Your task to perform on an android device: Open the calendar and show me this week's events? Image 0: 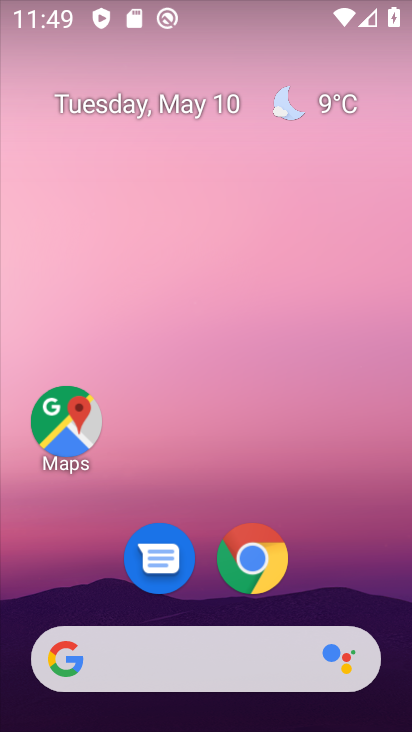
Step 0: drag from (389, 580) to (388, 209)
Your task to perform on an android device: Open the calendar and show me this week's events? Image 1: 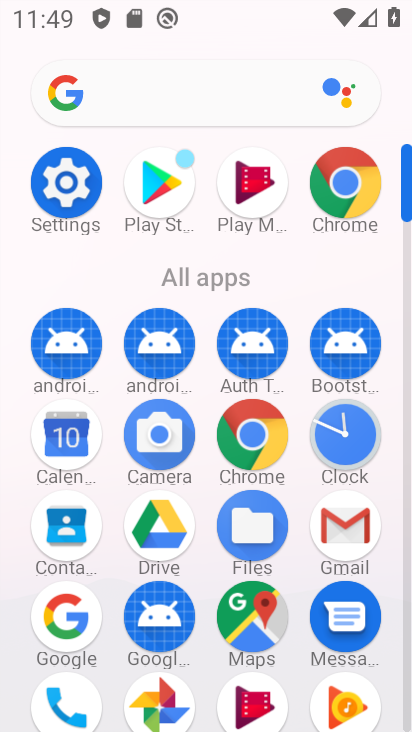
Step 1: click (52, 449)
Your task to perform on an android device: Open the calendar and show me this week's events? Image 2: 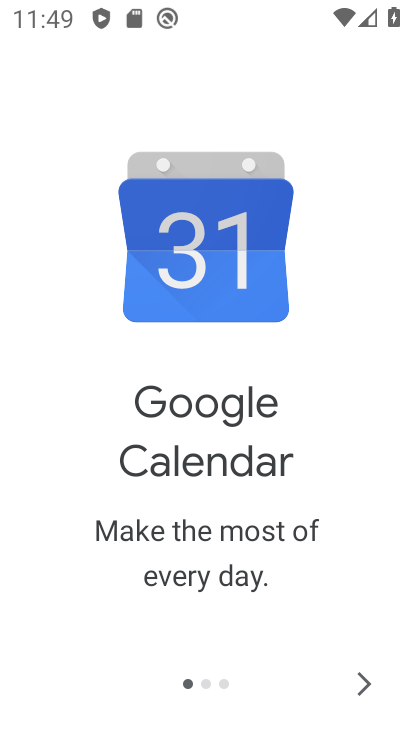
Step 2: click (371, 698)
Your task to perform on an android device: Open the calendar and show me this week's events? Image 3: 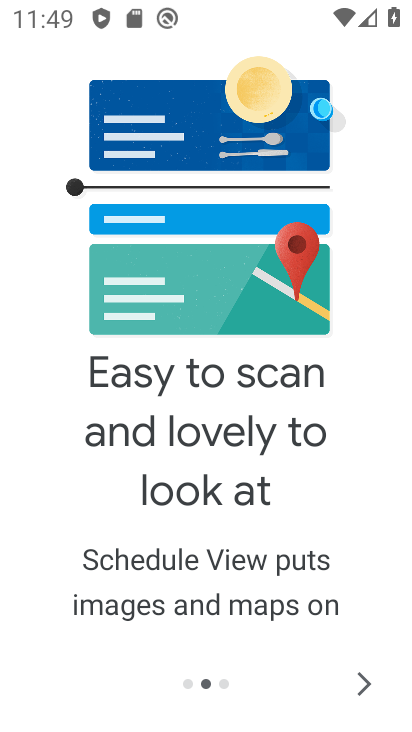
Step 3: click (374, 697)
Your task to perform on an android device: Open the calendar and show me this week's events? Image 4: 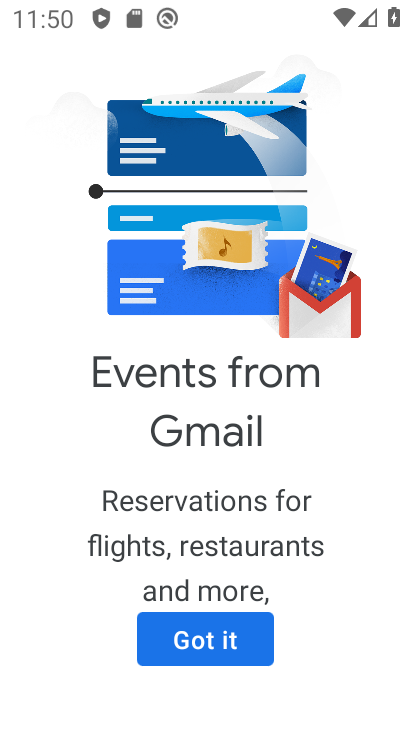
Step 4: click (183, 650)
Your task to perform on an android device: Open the calendar and show me this week's events? Image 5: 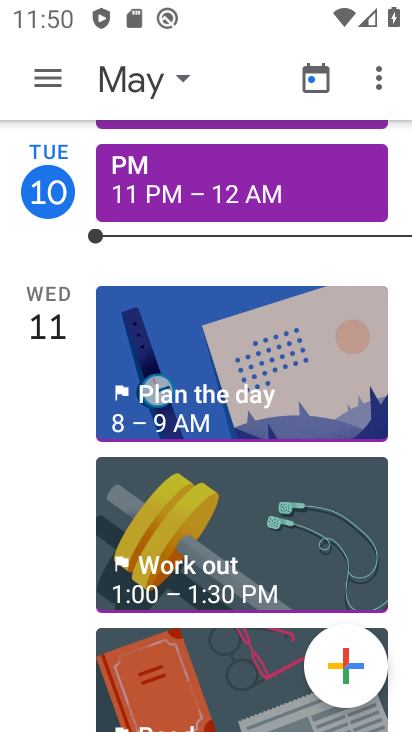
Step 5: click (136, 81)
Your task to perform on an android device: Open the calendar and show me this week's events? Image 6: 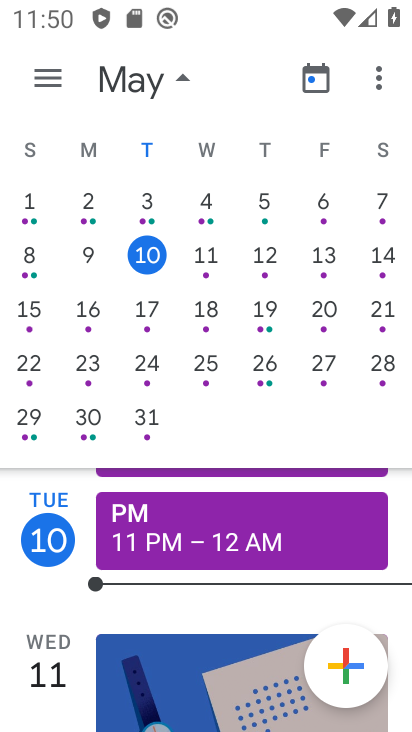
Step 6: task complete